Your task to perform on an android device: Go to internet settings Image 0: 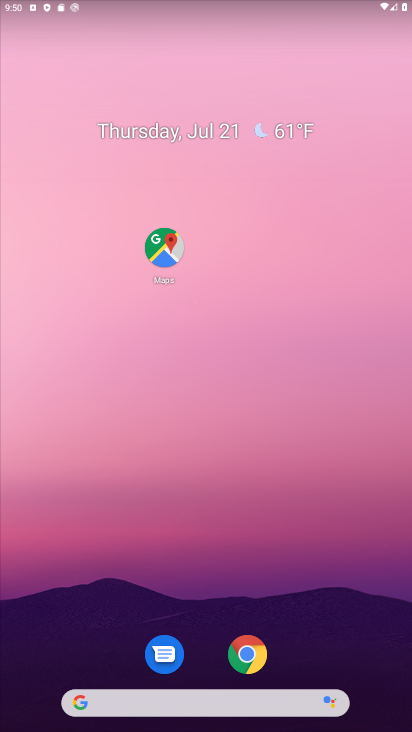
Step 0: click (102, 698)
Your task to perform on an android device: Go to internet settings Image 1: 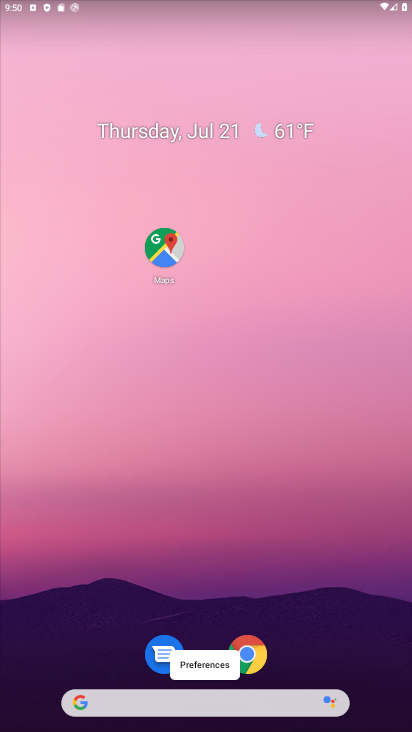
Step 1: drag from (40, 671) to (213, 117)
Your task to perform on an android device: Go to internet settings Image 2: 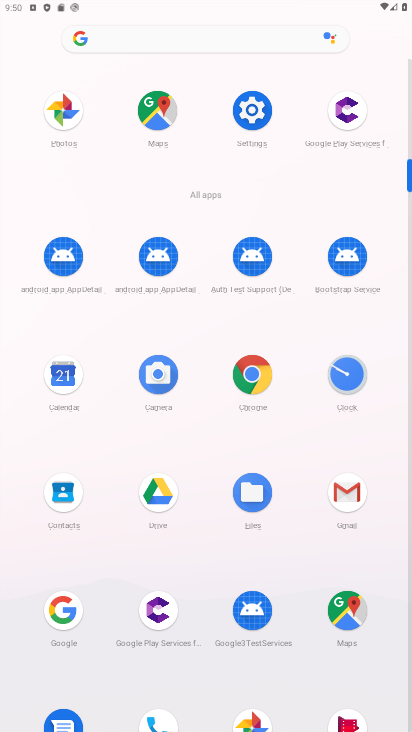
Step 2: click (251, 110)
Your task to perform on an android device: Go to internet settings Image 3: 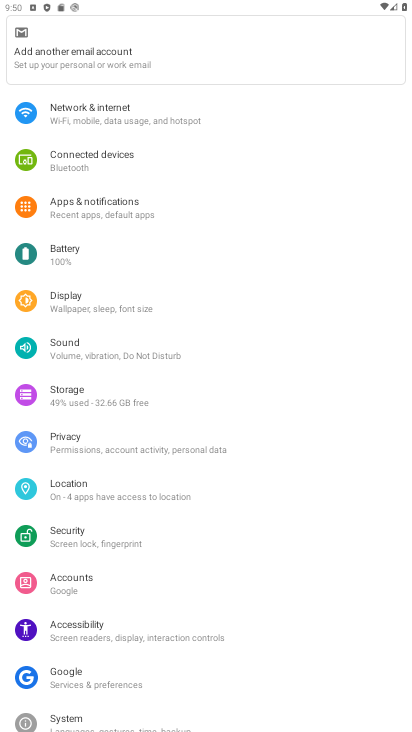
Step 3: click (96, 126)
Your task to perform on an android device: Go to internet settings Image 4: 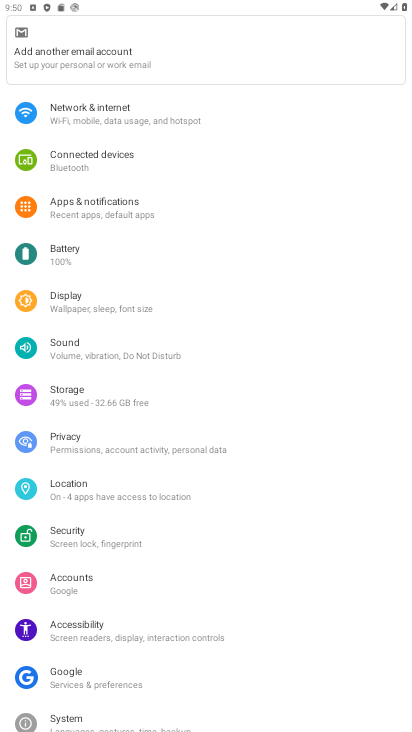
Step 4: click (96, 107)
Your task to perform on an android device: Go to internet settings Image 5: 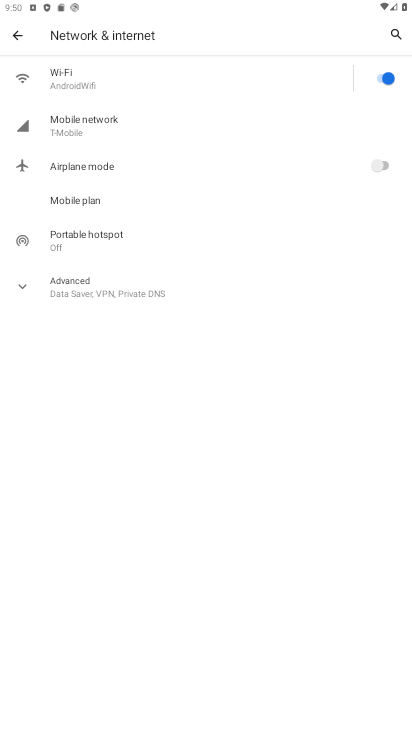
Step 5: task complete